Your task to perform on an android device: turn on showing notifications on the lock screen Image 0: 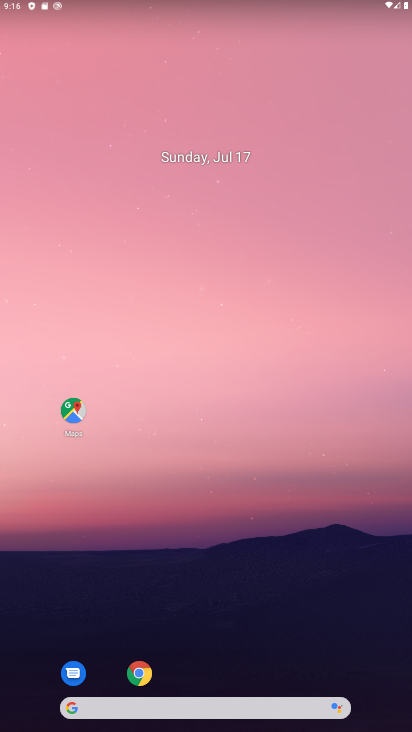
Step 0: drag from (234, 662) to (180, 25)
Your task to perform on an android device: turn on showing notifications on the lock screen Image 1: 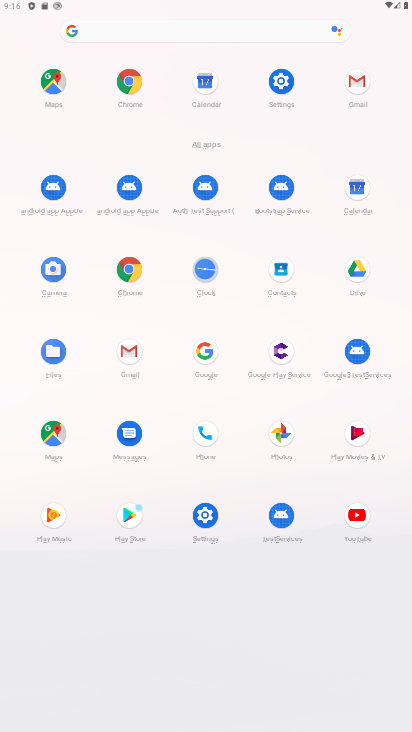
Step 1: click (208, 515)
Your task to perform on an android device: turn on showing notifications on the lock screen Image 2: 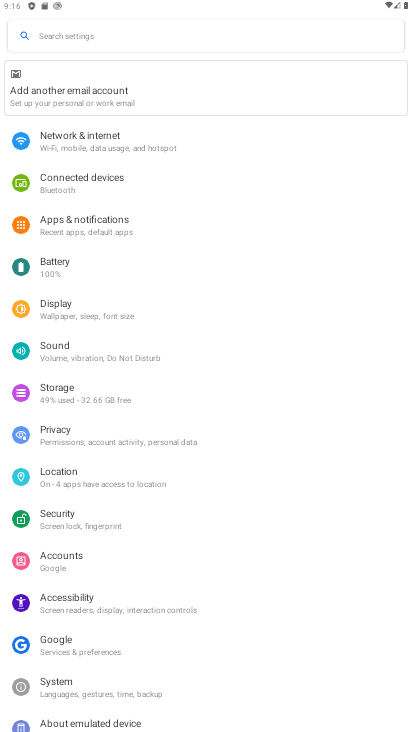
Step 2: click (73, 215)
Your task to perform on an android device: turn on showing notifications on the lock screen Image 3: 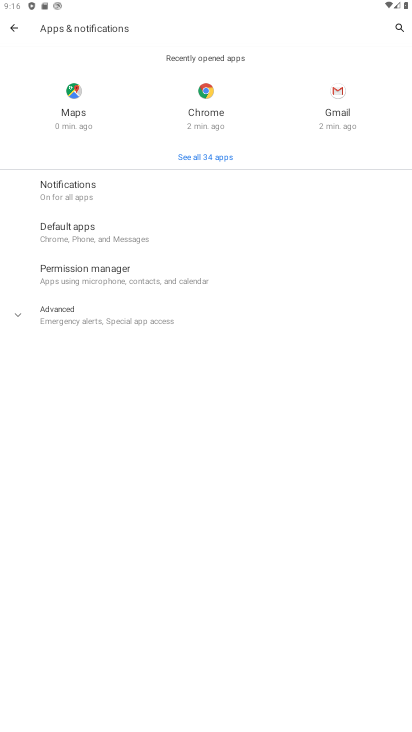
Step 3: click (94, 188)
Your task to perform on an android device: turn on showing notifications on the lock screen Image 4: 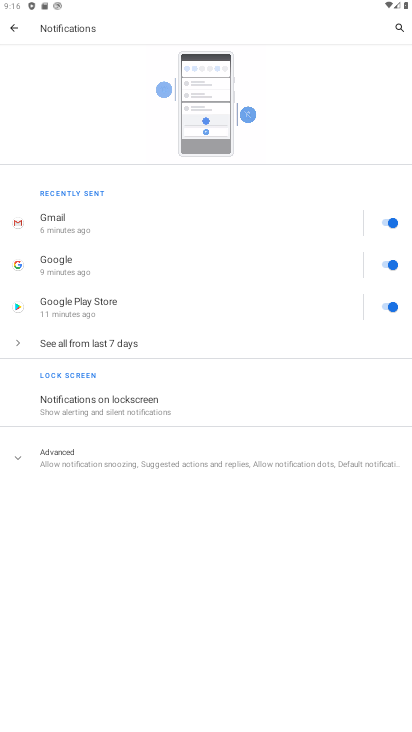
Step 4: click (132, 411)
Your task to perform on an android device: turn on showing notifications on the lock screen Image 5: 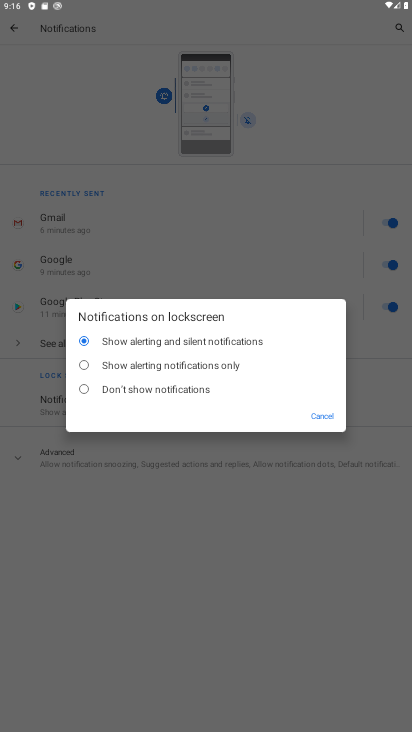
Step 5: task complete